Your task to perform on an android device: visit the assistant section in the google photos Image 0: 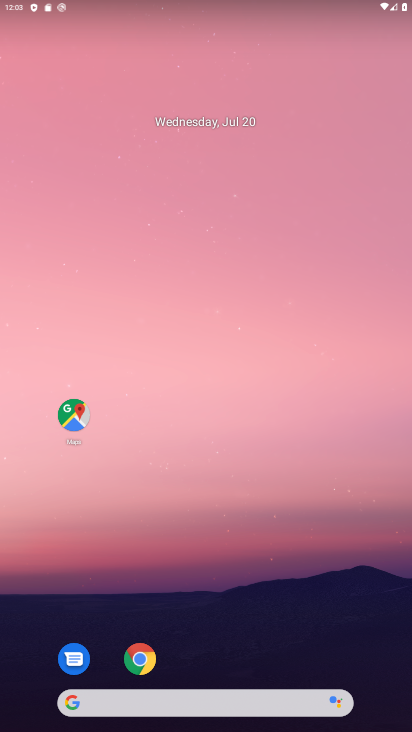
Step 0: drag from (390, 638) to (323, 26)
Your task to perform on an android device: visit the assistant section in the google photos Image 1: 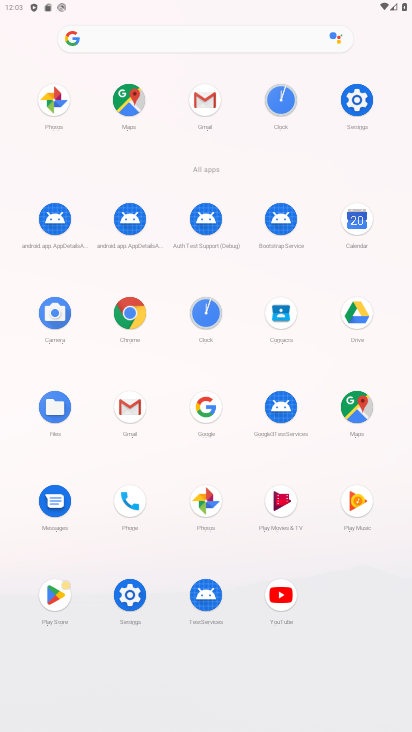
Step 1: click (201, 496)
Your task to perform on an android device: visit the assistant section in the google photos Image 2: 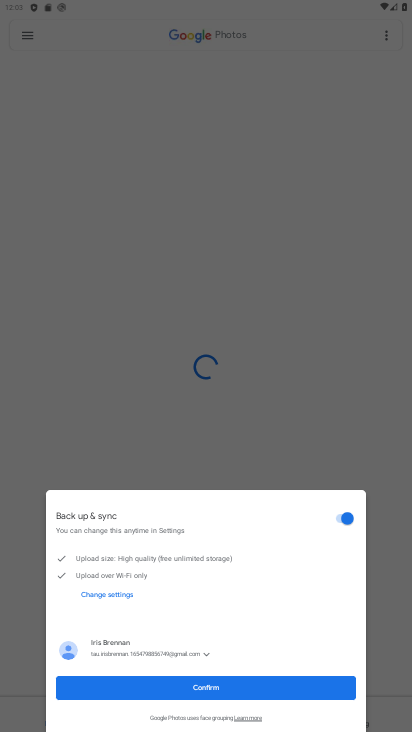
Step 2: click (211, 682)
Your task to perform on an android device: visit the assistant section in the google photos Image 3: 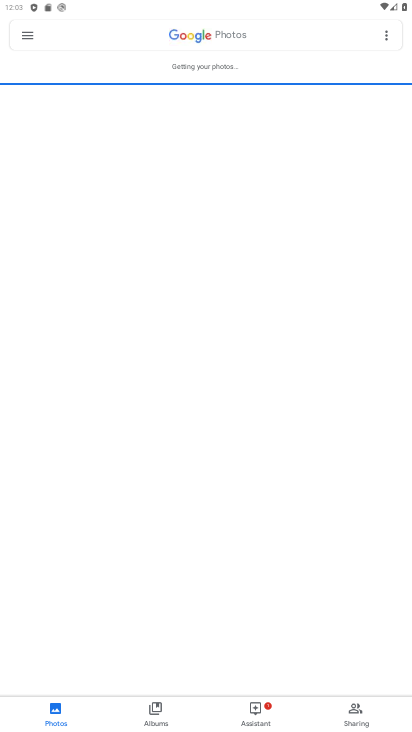
Step 3: click (246, 711)
Your task to perform on an android device: visit the assistant section in the google photos Image 4: 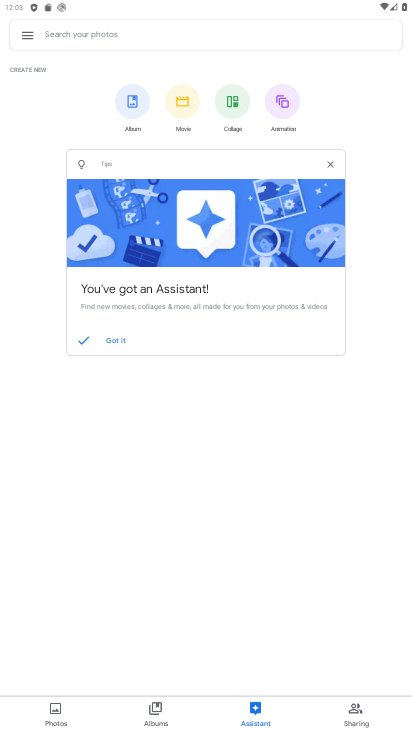
Step 4: task complete